Your task to perform on an android device: turn off smart reply in the gmail app Image 0: 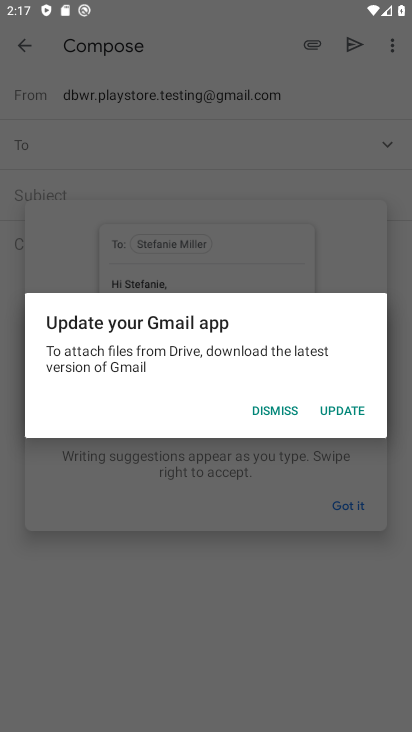
Step 0: press home button
Your task to perform on an android device: turn off smart reply in the gmail app Image 1: 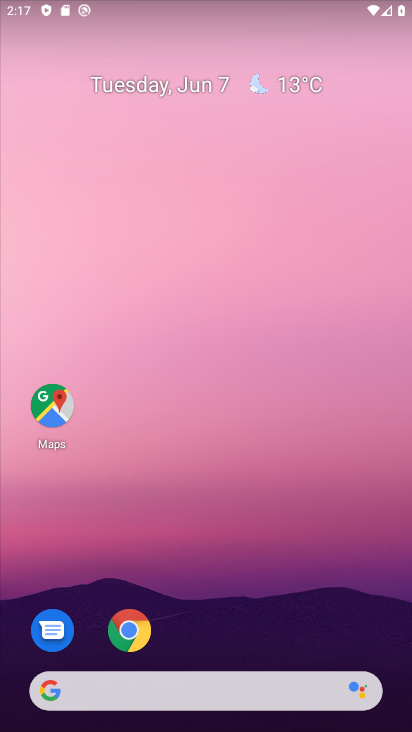
Step 1: drag from (212, 681) to (263, 96)
Your task to perform on an android device: turn off smart reply in the gmail app Image 2: 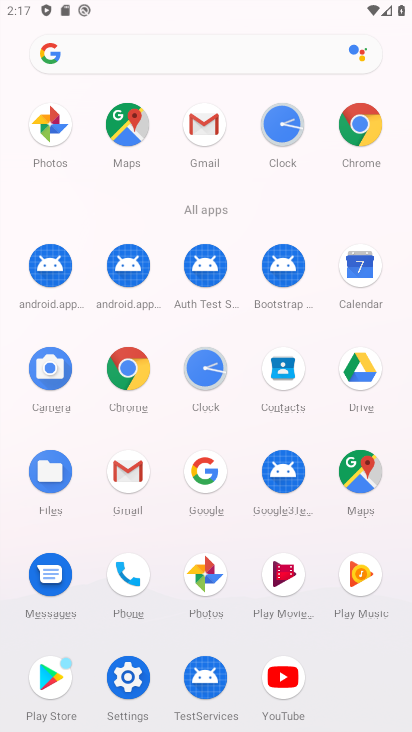
Step 2: click (132, 463)
Your task to perform on an android device: turn off smart reply in the gmail app Image 3: 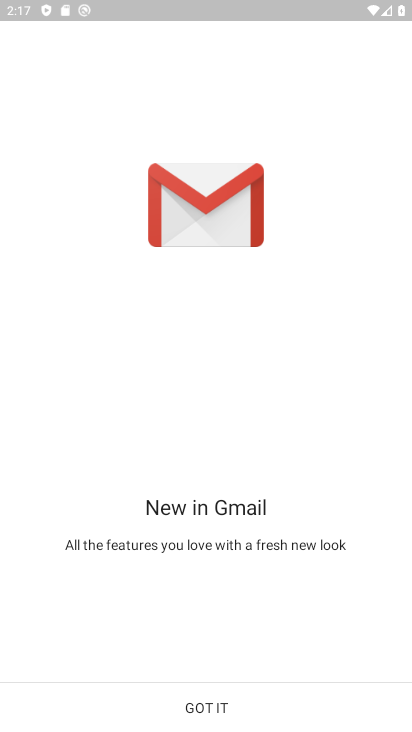
Step 3: click (260, 713)
Your task to perform on an android device: turn off smart reply in the gmail app Image 4: 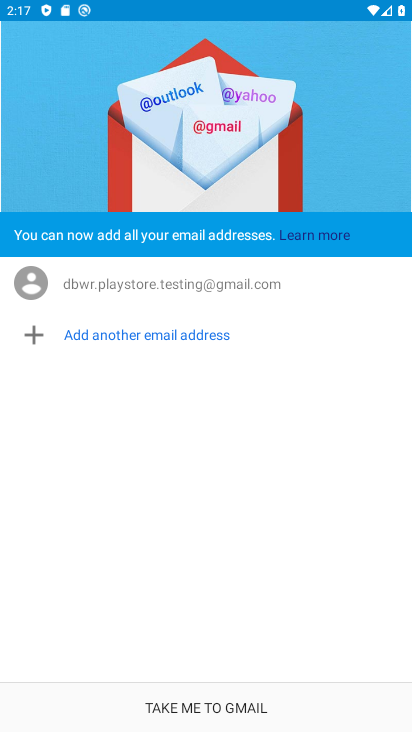
Step 4: click (219, 720)
Your task to perform on an android device: turn off smart reply in the gmail app Image 5: 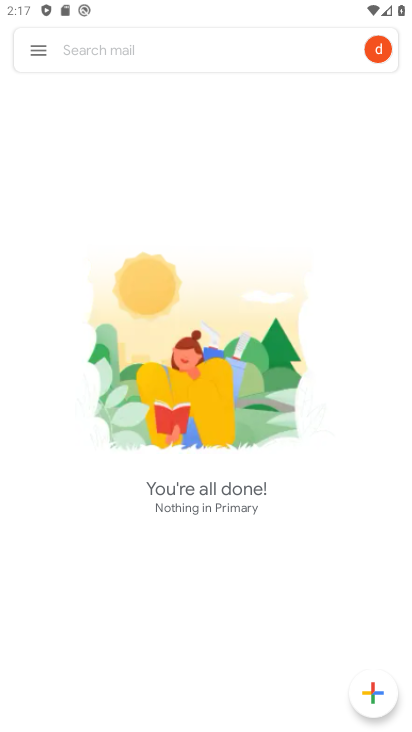
Step 5: click (37, 49)
Your task to perform on an android device: turn off smart reply in the gmail app Image 6: 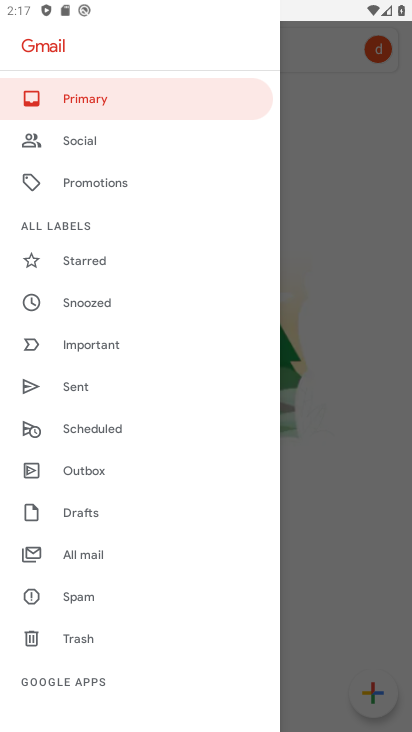
Step 6: drag from (109, 584) to (152, 170)
Your task to perform on an android device: turn off smart reply in the gmail app Image 7: 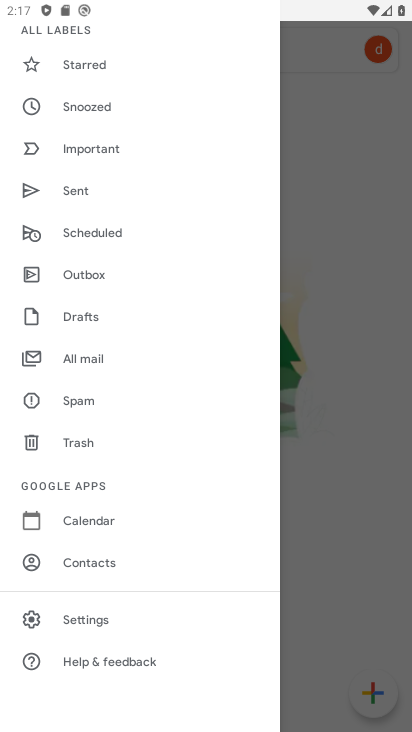
Step 7: click (88, 617)
Your task to perform on an android device: turn off smart reply in the gmail app Image 8: 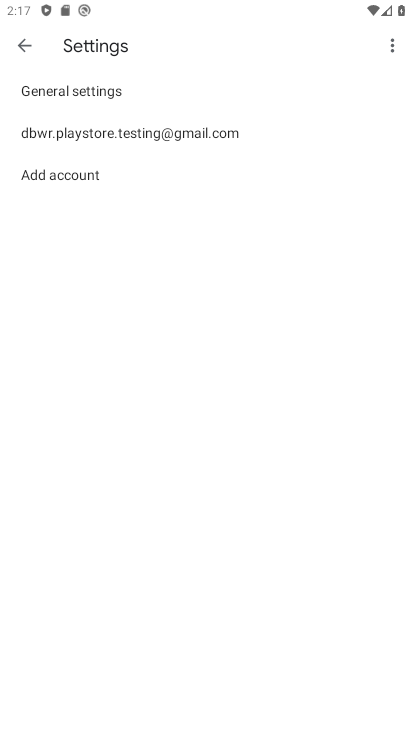
Step 8: click (135, 125)
Your task to perform on an android device: turn off smart reply in the gmail app Image 9: 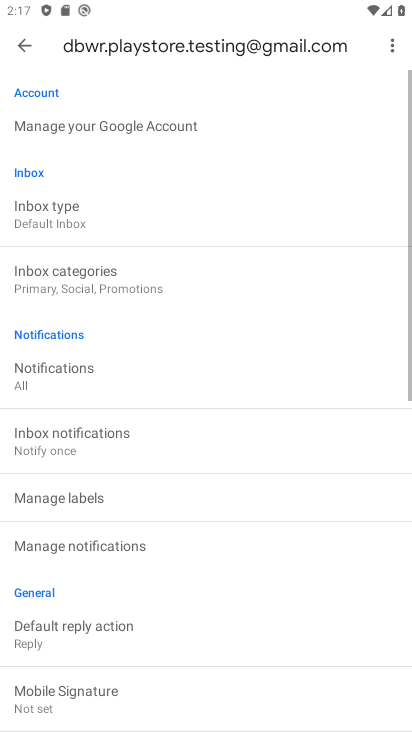
Step 9: drag from (223, 646) to (310, 44)
Your task to perform on an android device: turn off smart reply in the gmail app Image 10: 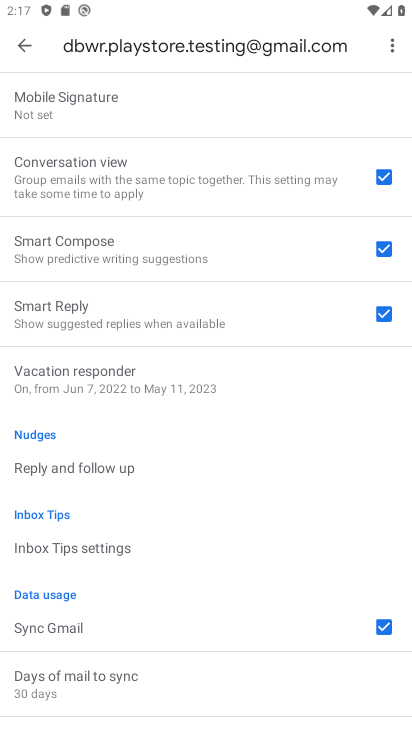
Step 10: click (383, 306)
Your task to perform on an android device: turn off smart reply in the gmail app Image 11: 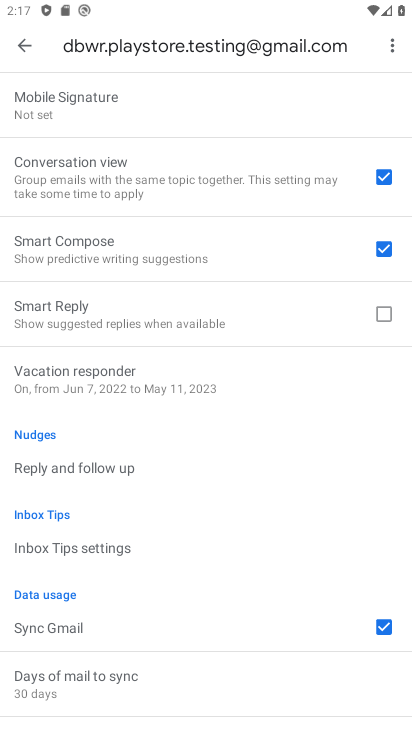
Step 11: task complete